Your task to perform on an android device: Open settings on Google Maps Image 0: 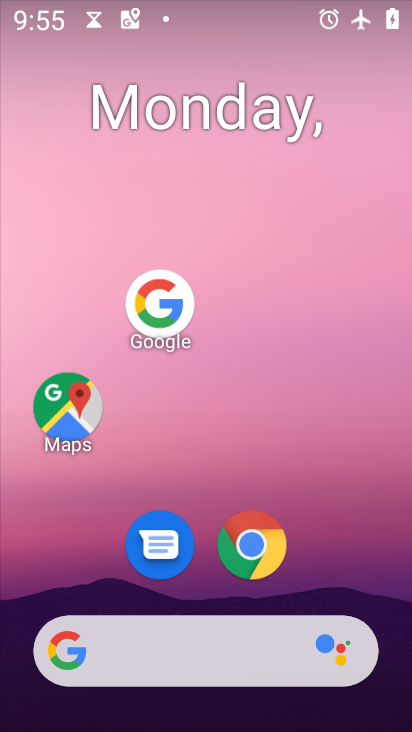
Step 0: press home button
Your task to perform on an android device: Open settings on Google Maps Image 1: 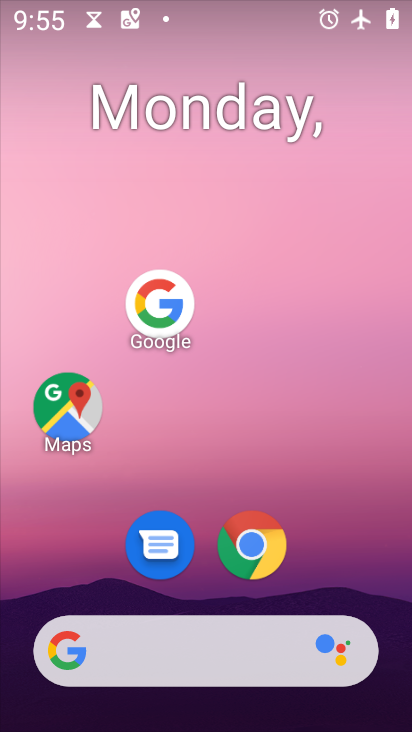
Step 1: click (56, 418)
Your task to perform on an android device: Open settings on Google Maps Image 2: 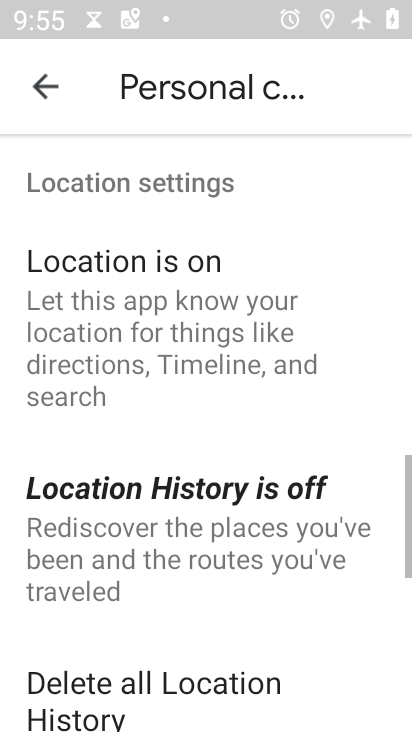
Step 2: click (39, 91)
Your task to perform on an android device: Open settings on Google Maps Image 3: 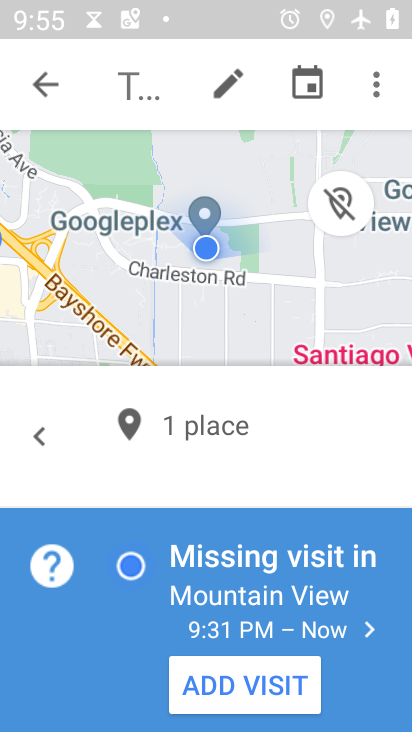
Step 3: click (51, 89)
Your task to perform on an android device: Open settings on Google Maps Image 4: 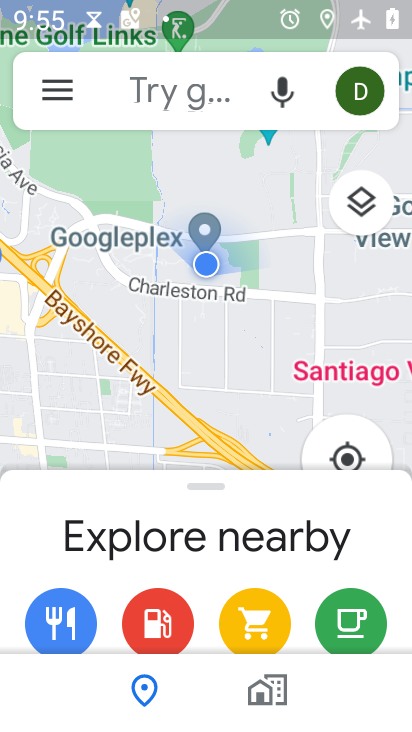
Step 4: click (51, 89)
Your task to perform on an android device: Open settings on Google Maps Image 5: 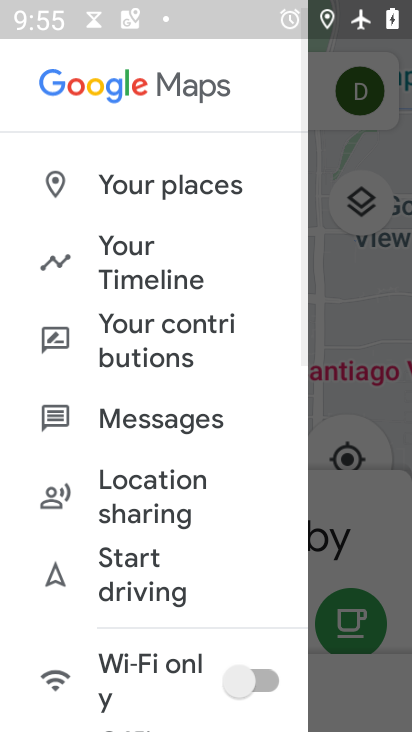
Step 5: drag from (148, 649) to (277, 52)
Your task to perform on an android device: Open settings on Google Maps Image 6: 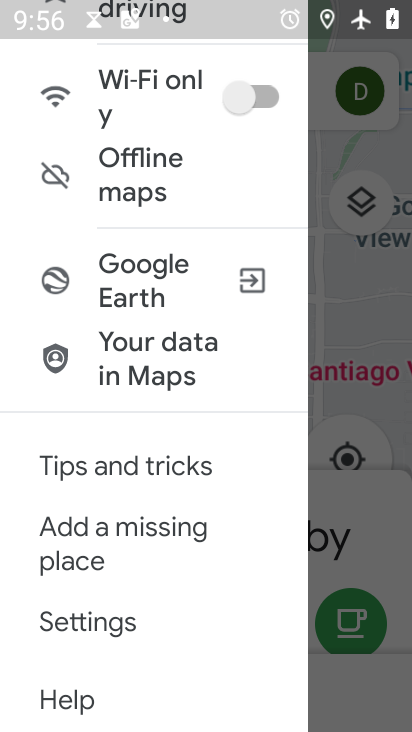
Step 6: click (121, 623)
Your task to perform on an android device: Open settings on Google Maps Image 7: 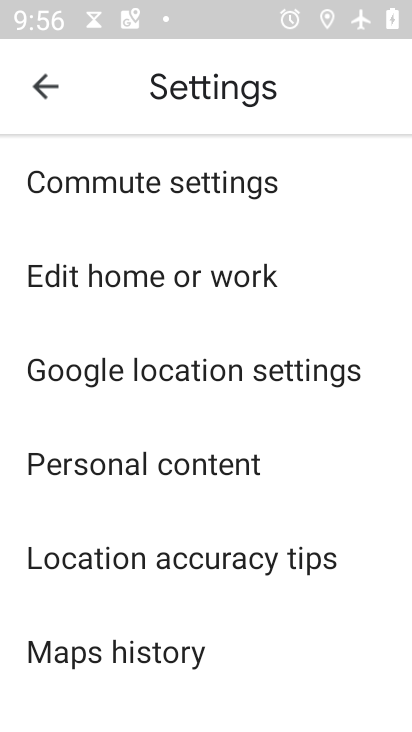
Step 7: task complete